Your task to perform on an android device: turn pop-ups off in chrome Image 0: 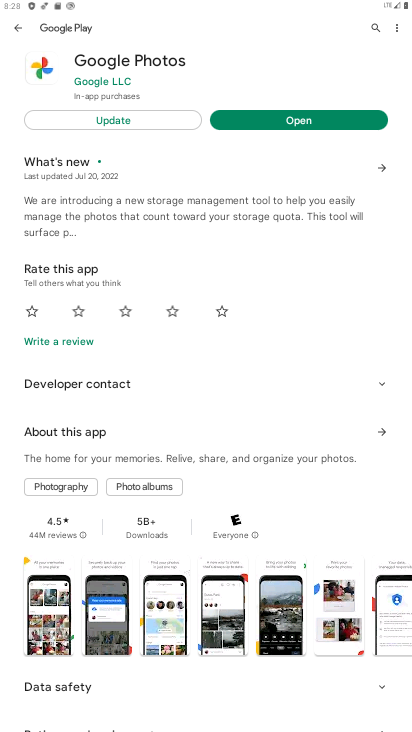
Step 0: press home button
Your task to perform on an android device: turn pop-ups off in chrome Image 1: 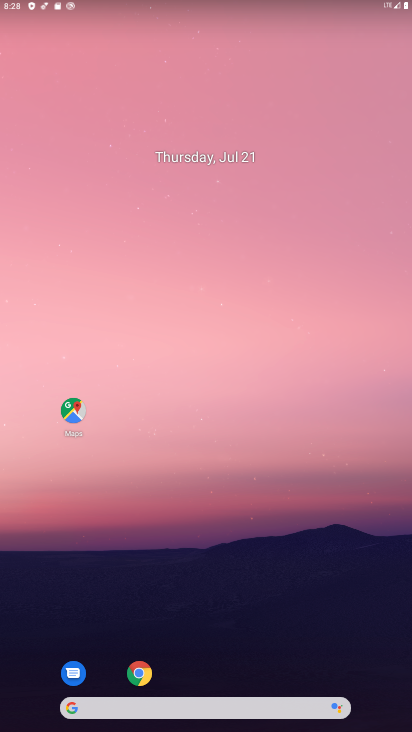
Step 1: click (143, 670)
Your task to perform on an android device: turn pop-ups off in chrome Image 2: 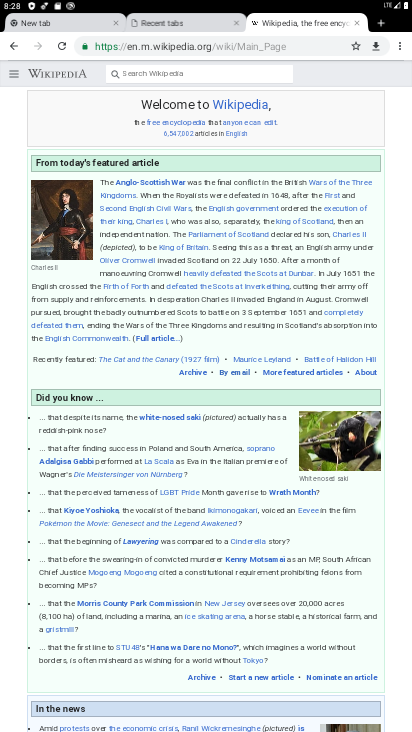
Step 2: click (405, 43)
Your task to perform on an android device: turn pop-ups off in chrome Image 3: 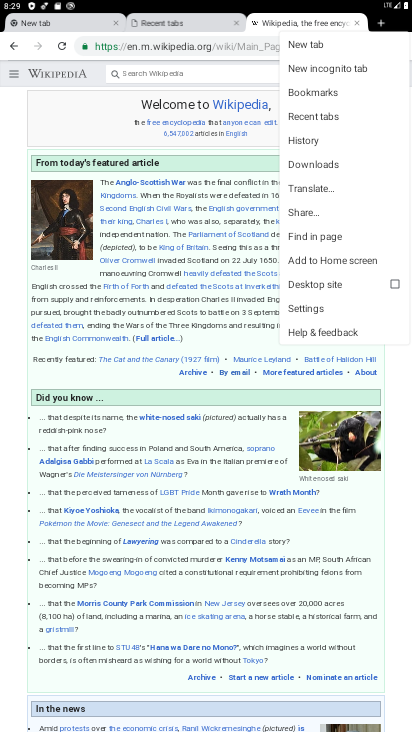
Step 3: click (308, 309)
Your task to perform on an android device: turn pop-ups off in chrome Image 4: 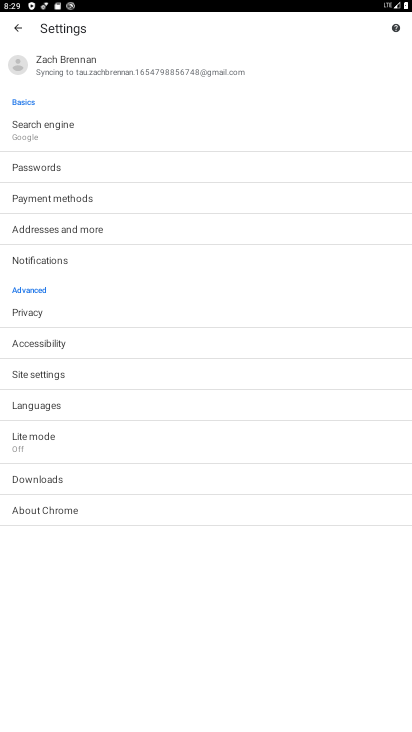
Step 4: click (72, 378)
Your task to perform on an android device: turn pop-ups off in chrome Image 5: 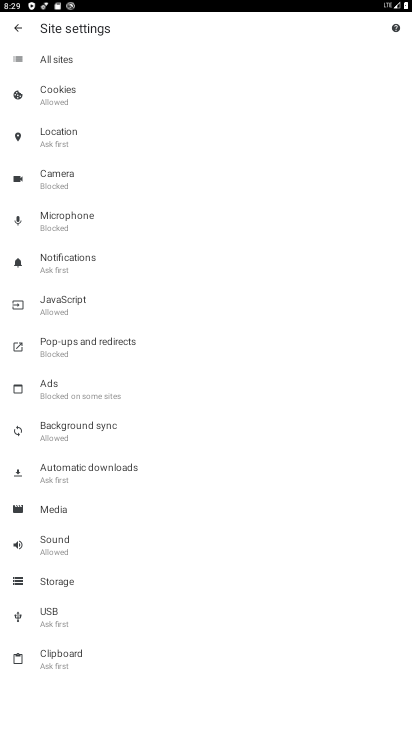
Step 5: click (132, 346)
Your task to perform on an android device: turn pop-ups off in chrome Image 6: 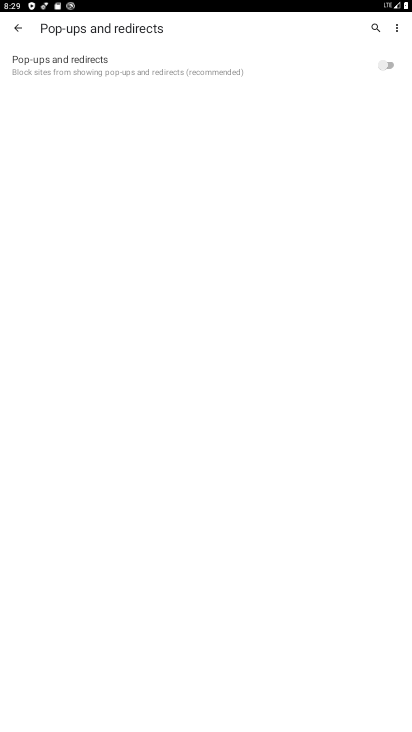
Step 6: task complete